Your task to perform on an android device: Open my contact list Image 0: 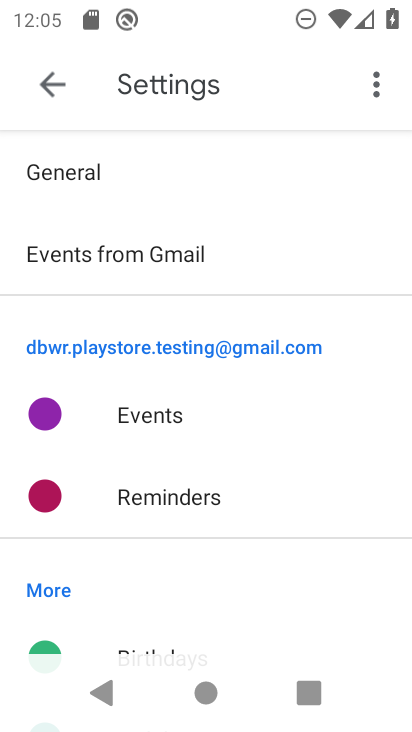
Step 0: press home button
Your task to perform on an android device: Open my contact list Image 1: 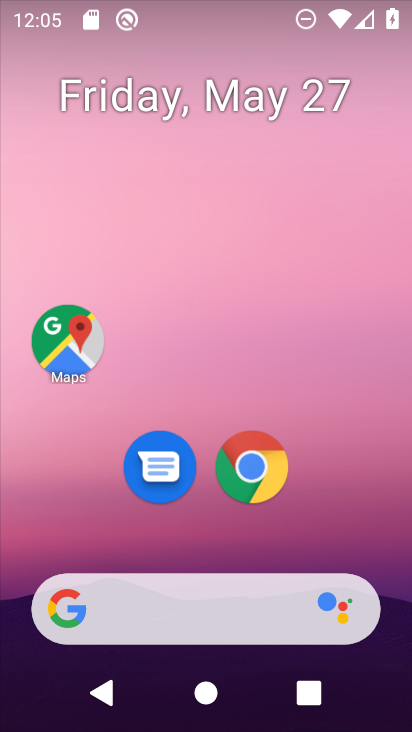
Step 1: drag from (184, 561) to (227, 112)
Your task to perform on an android device: Open my contact list Image 2: 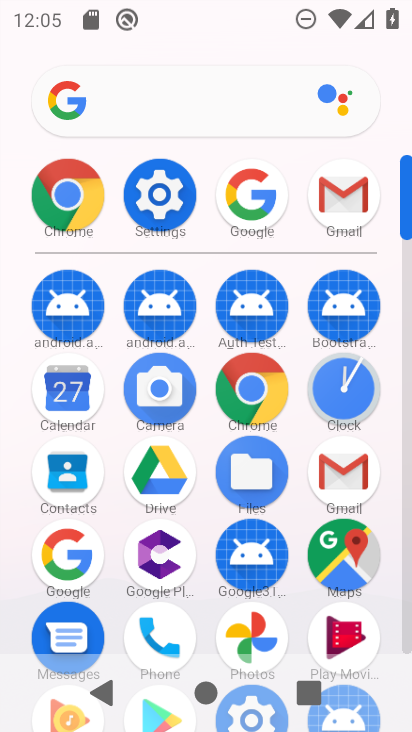
Step 2: click (79, 486)
Your task to perform on an android device: Open my contact list Image 3: 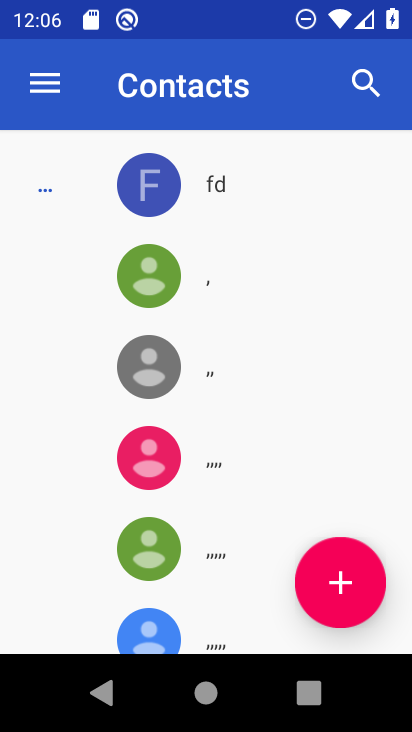
Step 3: task complete